Your task to perform on an android device: Go to Google maps Image 0: 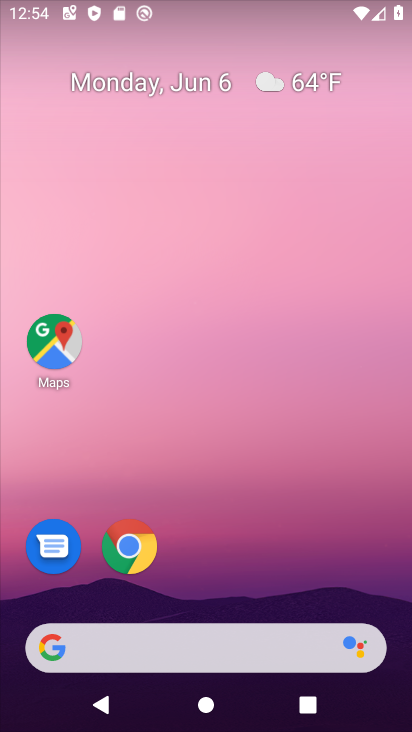
Step 0: click (40, 337)
Your task to perform on an android device: Go to Google maps Image 1: 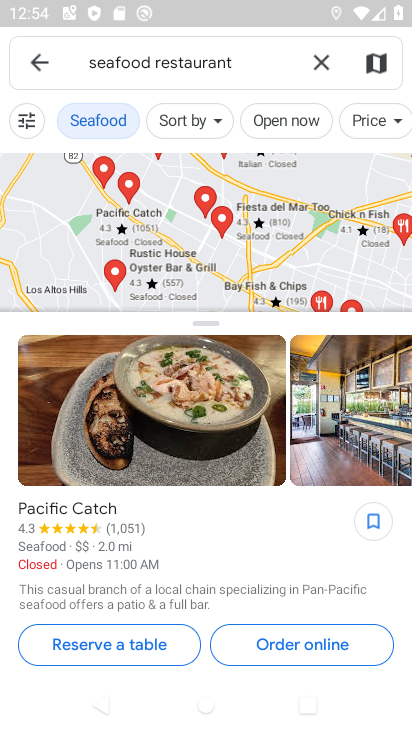
Step 1: click (320, 58)
Your task to perform on an android device: Go to Google maps Image 2: 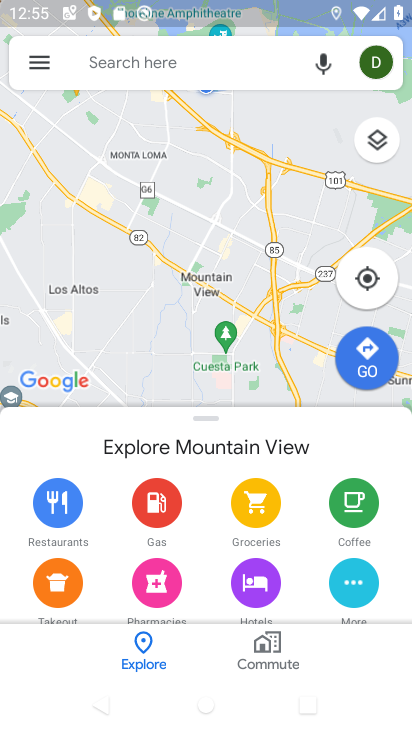
Step 2: task complete